Your task to perform on an android device: turn off location Image 0: 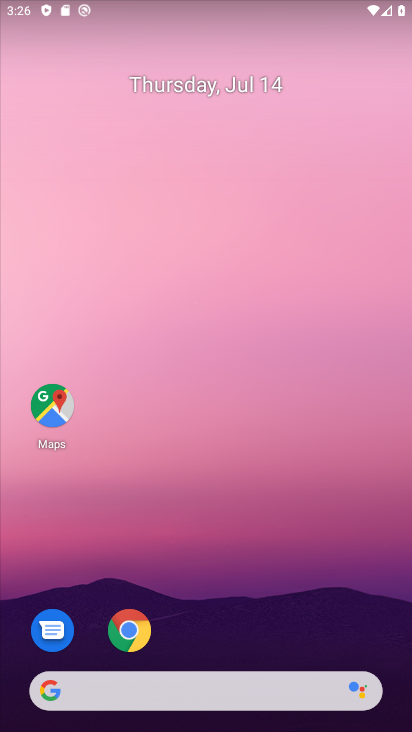
Step 0: drag from (251, 691) to (250, 101)
Your task to perform on an android device: turn off location Image 1: 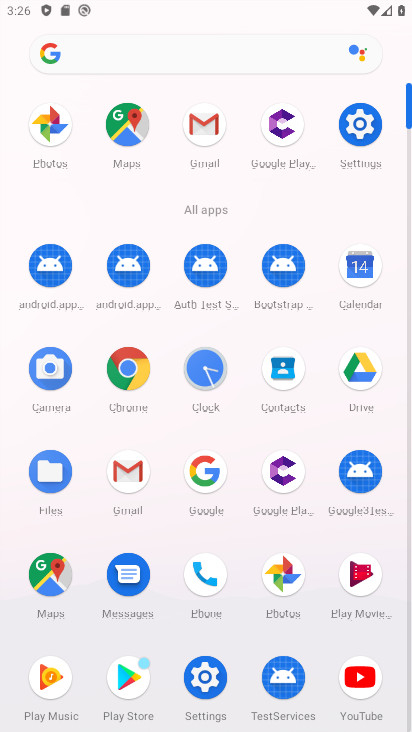
Step 1: click (360, 121)
Your task to perform on an android device: turn off location Image 2: 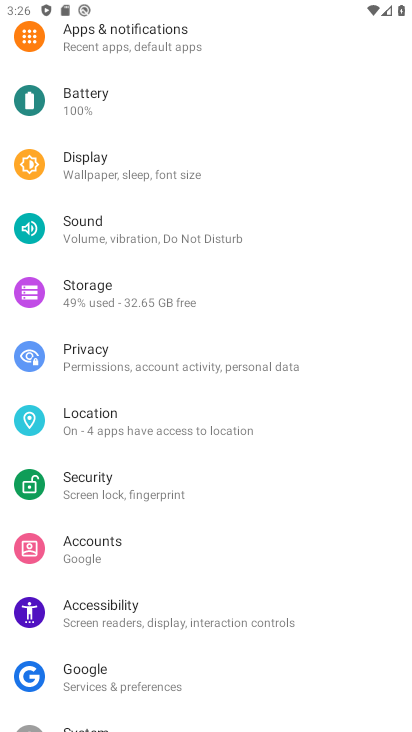
Step 2: click (86, 415)
Your task to perform on an android device: turn off location Image 3: 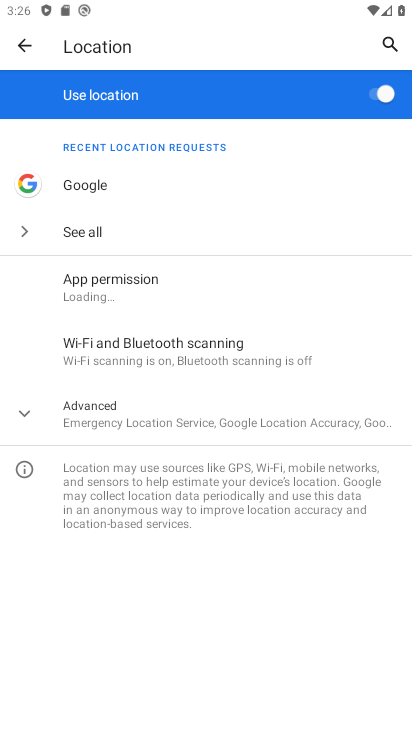
Step 3: click (375, 94)
Your task to perform on an android device: turn off location Image 4: 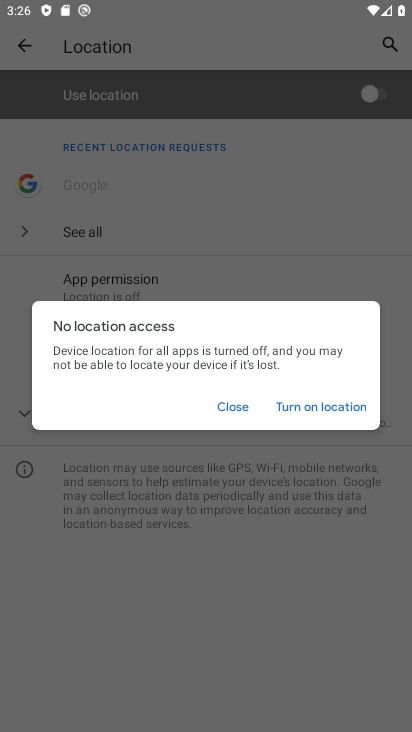
Step 4: task complete